Your task to perform on an android device: turn on priority inbox in the gmail app Image 0: 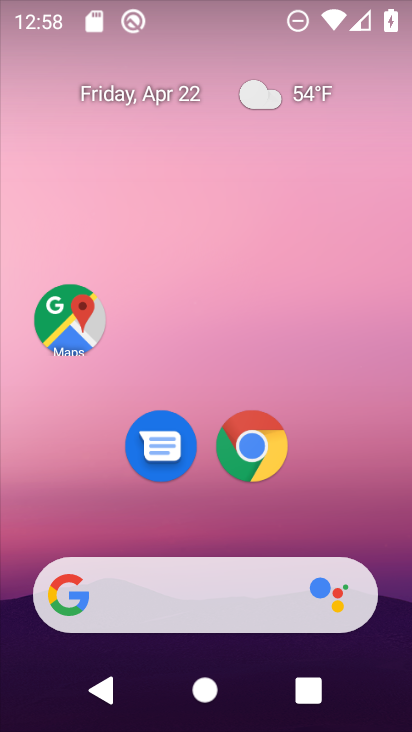
Step 0: drag from (396, 508) to (355, 177)
Your task to perform on an android device: turn on priority inbox in the gmail app Image 1: 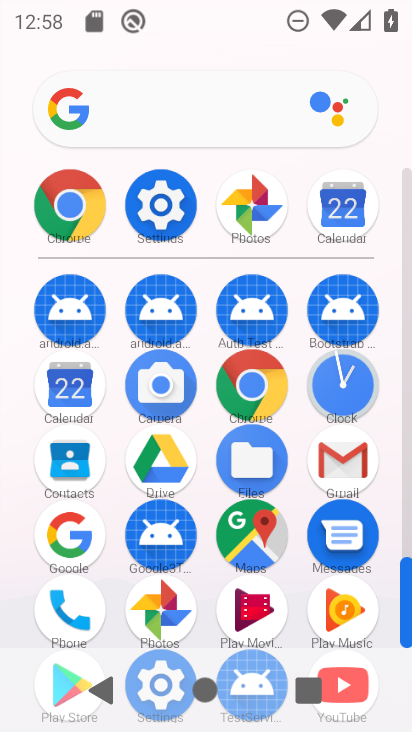
Step 1: click (335, 486)
Your task to perform on an android device: turn on priority inbox in the gmail app Image 2: 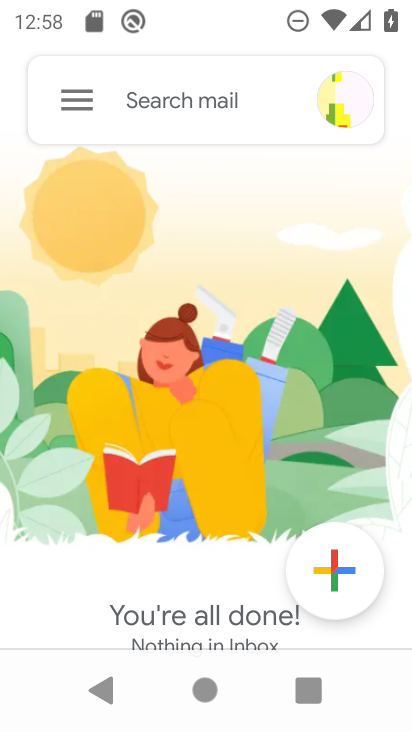
Step 2: click (73, 117)
Your task to perform on an android device: turn on priority inbox in the gmail app Image 3: 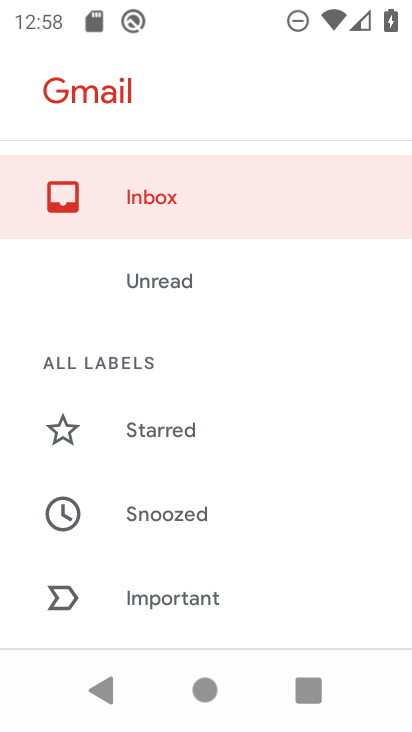
Step 3: drag from (208, 561) to (231, 37)
Your task to perform on an android device: turn on priority inbox in the gmail app Image 4: 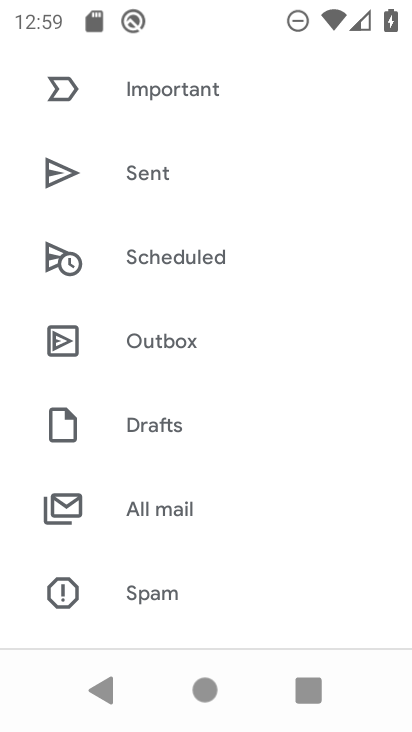
Step 4: drag from (242, 535) to (235, 94)
Your task to perform on an android device: turn on priority inbox in the gmail app Image 5: 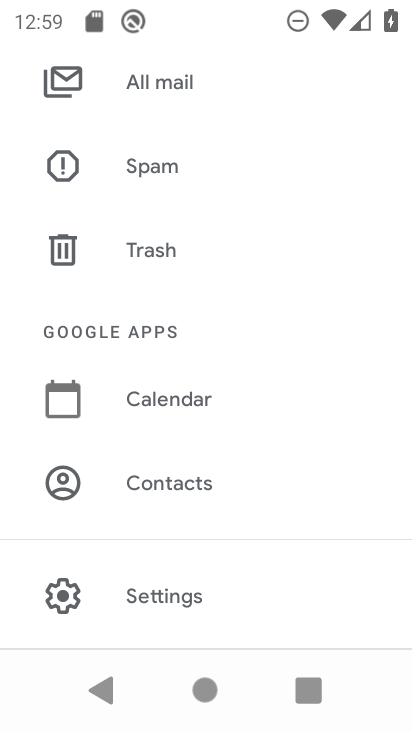
Step 5: click (242, 603)
Your task to perform on an android device: turn on priority inbox in the gmail app Image 6: 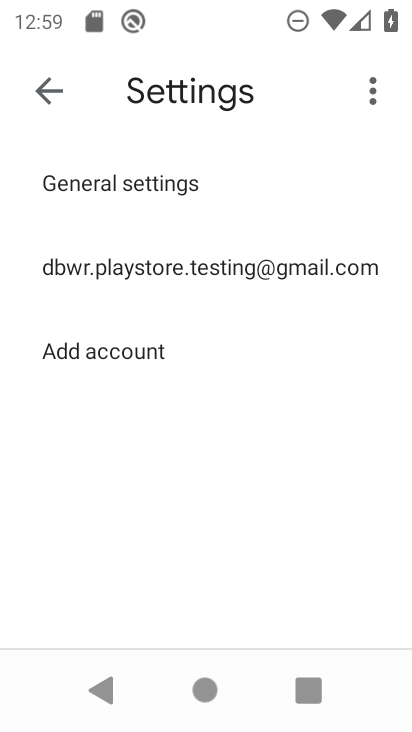
Step 6: click (249, 271)
Your task to perform on an android device: turn on priority inbox in the gmail app Image 7: 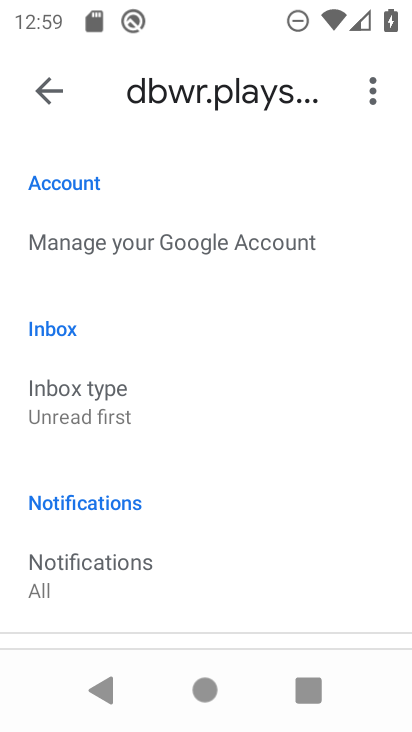
Step 7: drag from (277, 598) to (243, 151)
Your task to perform on an android device: turn on priority inbox in the gmail app Image 8: 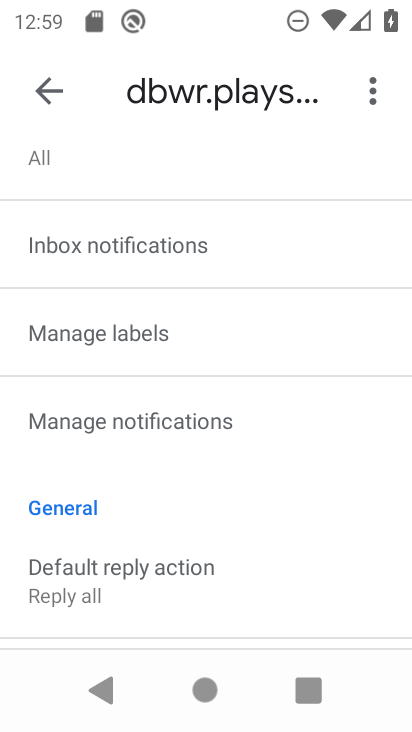
Step 8: drag from (251, 512) to (367, 662)
Your task to perform on an android device: turn on priority inbox in the gmail app Image 9: 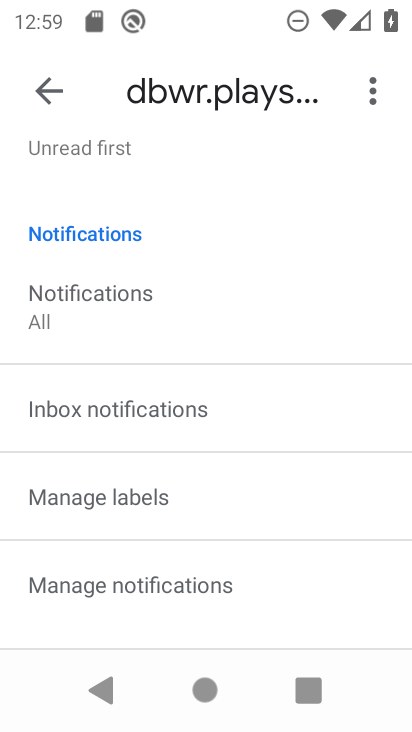
Step 9: click (241, 157)
Your task to perform on an android device: turn on priority inbox in the gmail app Image 10: 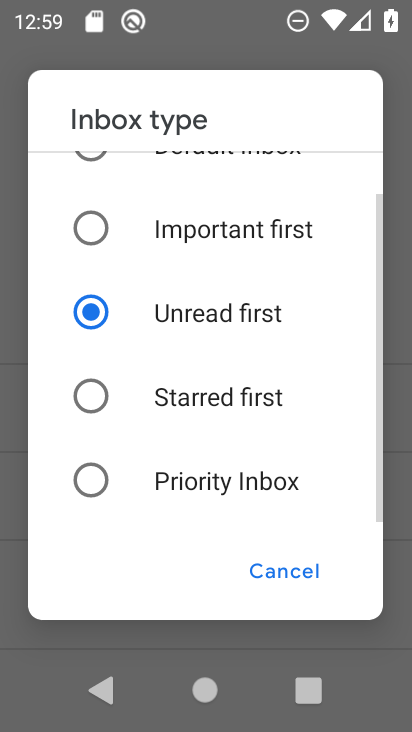
Step 10: click (226, 498)
Your task to perform on an android device: turn on priority inbox in the gmail app Image 11: 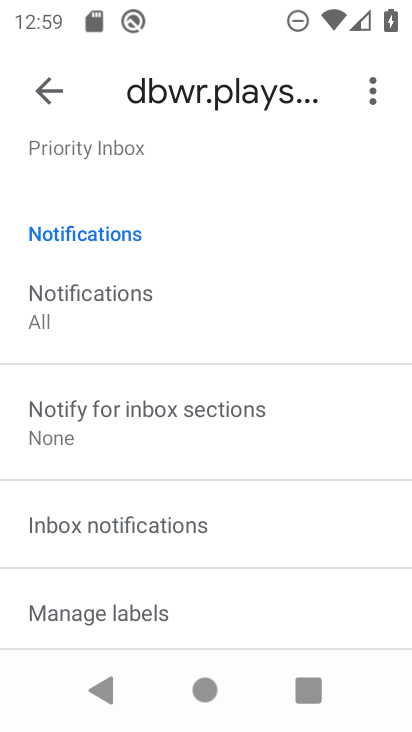
Step 11: task complete